Your task to perform on an android device: change timer sound Image 0: 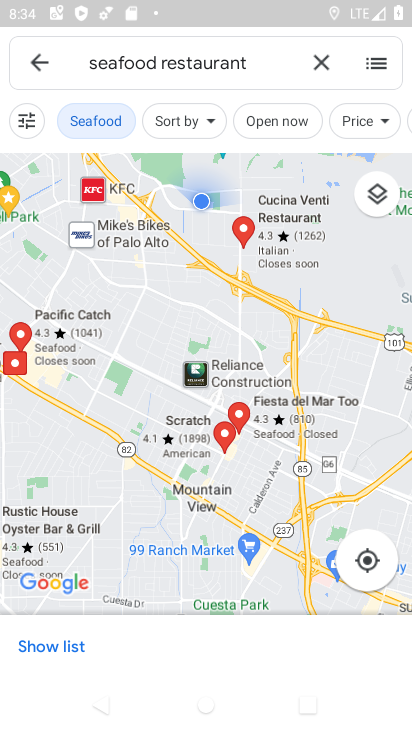
Step 0: press home button
Your task to perform on an android device: change timer sound Image 1: 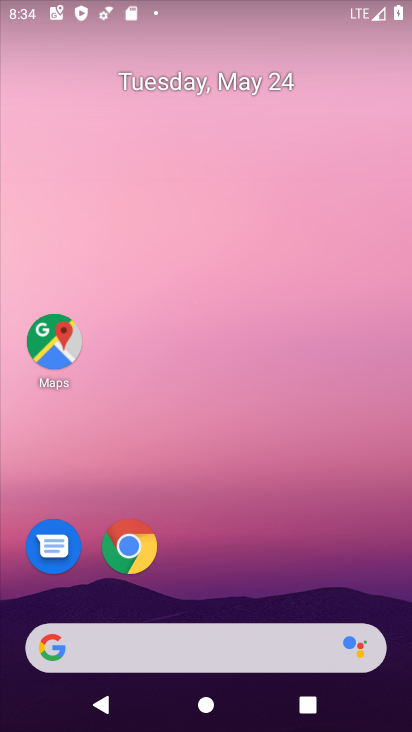
Step 1: drag from (226, 536) to (237, 25)
Your task to perform on an android device: change timer sound Image 2: 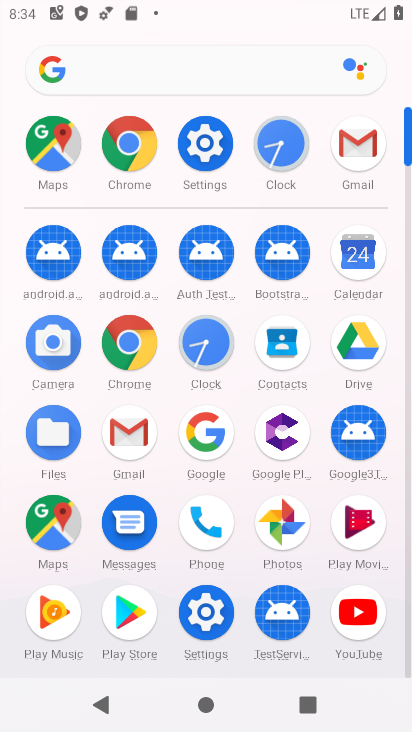
Step 2: click (284, 141)
Your task to perform on an android device: change timer sound Image 3: 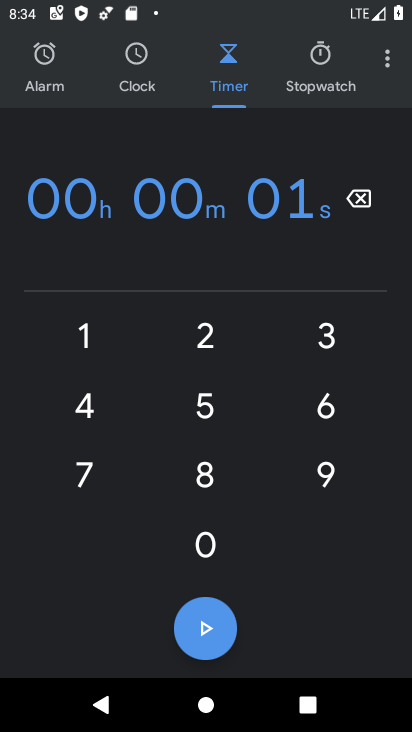
Step 3: click (383, 60)
Your task to perform on an android device: change timer sound Image 4: 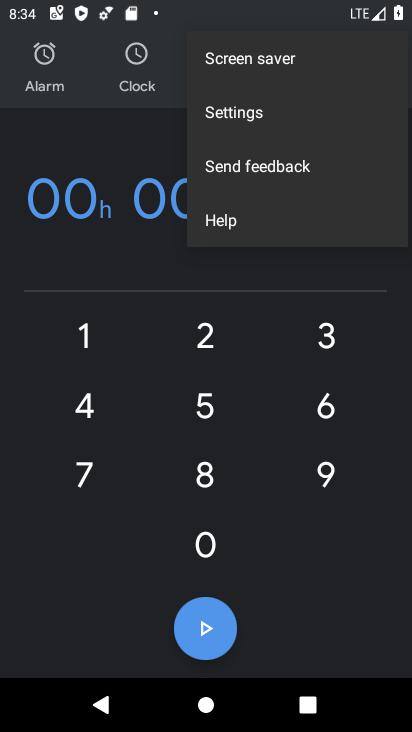
Step 4: click (342, 120)
Your task to perform on an android device: change timer sound Image 5: 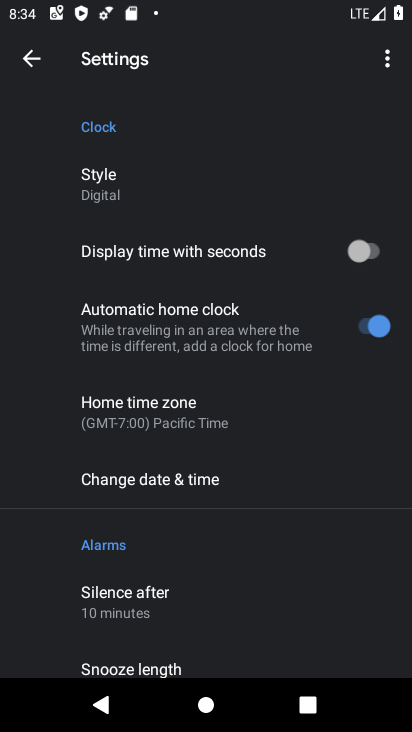
Step 5: drag from (226, 549) to (269, 0)
Your task to perform on an android device: change timer sound Image 6: 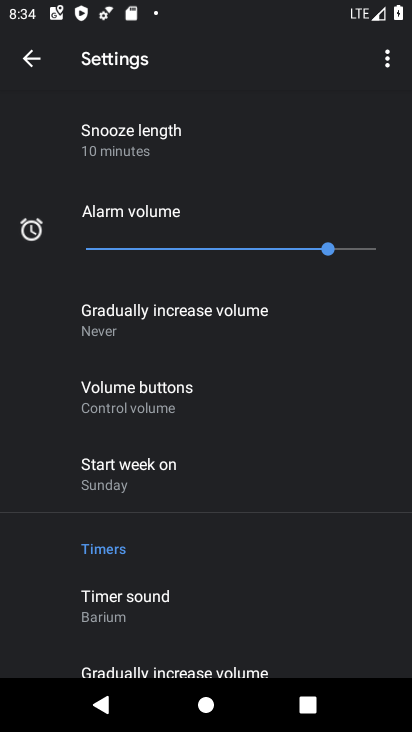
Step 6: click (168, 594)
Your task to perform on an android device: change timer sound Image 7: 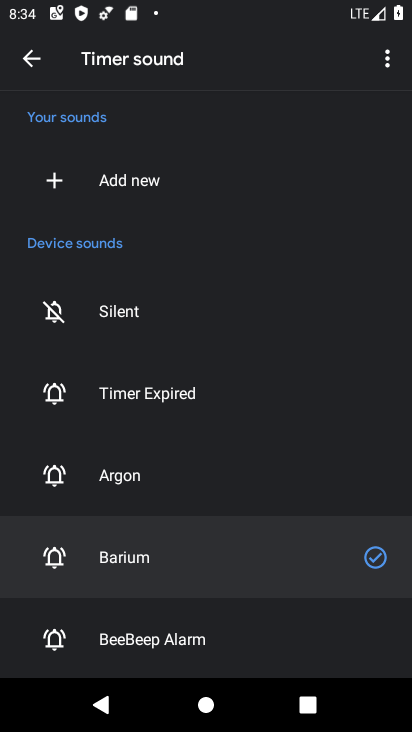
Step 7: click (150, 484)
Your task to perform on an android device: change timer sound Image 8: 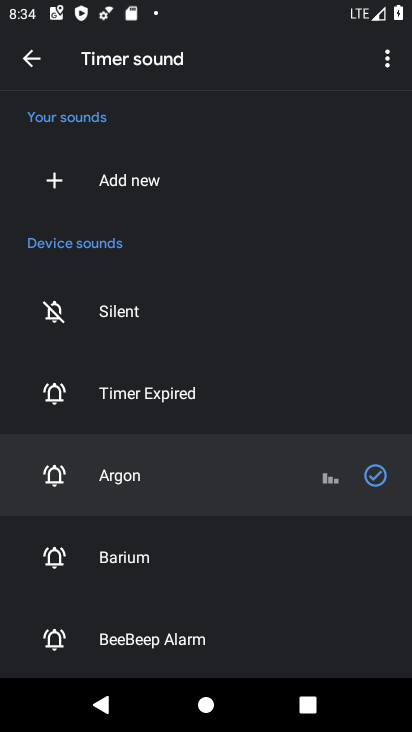
Step 8: task complete